Your task to perform on an android device: Clear the shopping cart on amazon. Search for "dell xps" on amazon, select the first entry, and add it to the cart. Image 0: 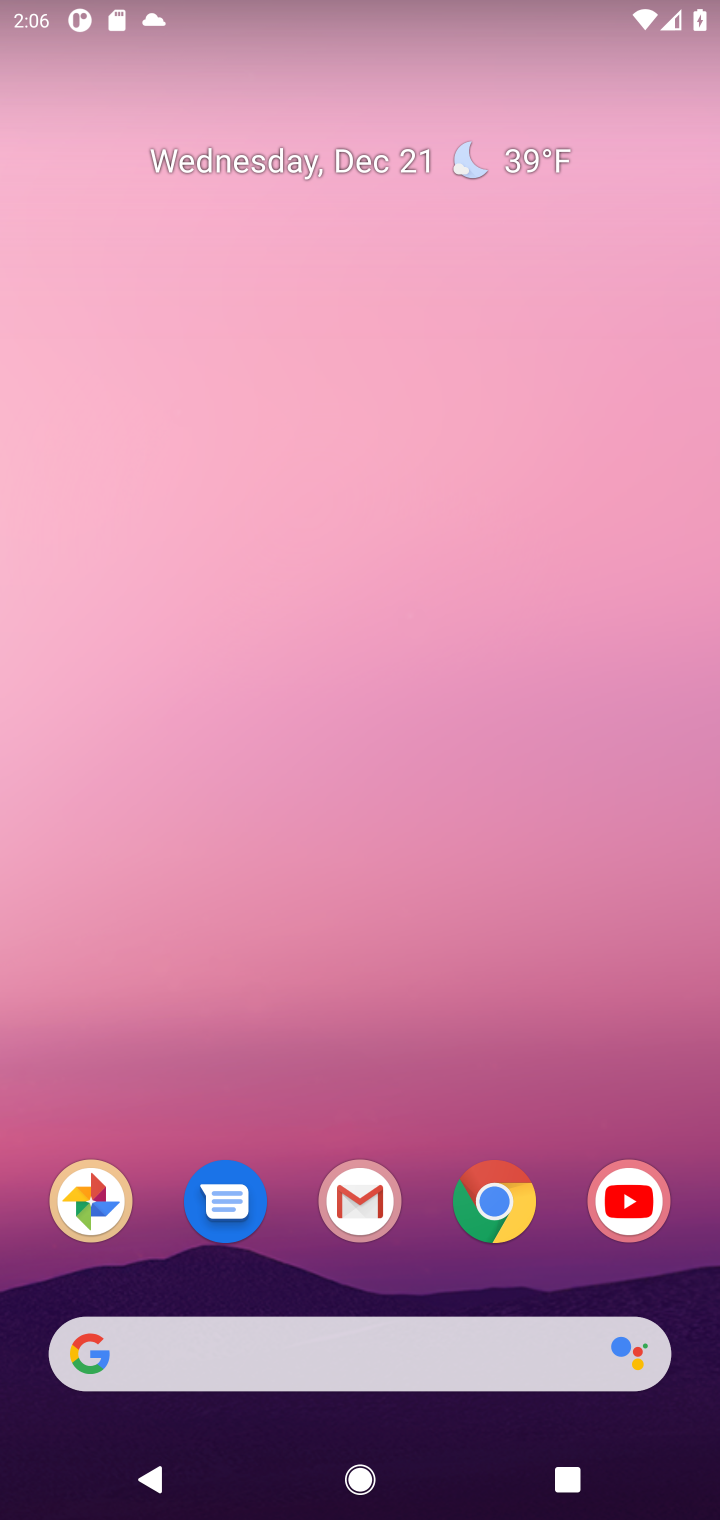
Step 0: click (488, 1198)
Your task to perform on an android device: Clear the shopping cart on amazon. Search for "dell xps" on amazon, select the first entry, and add it to the cart. Image 1: 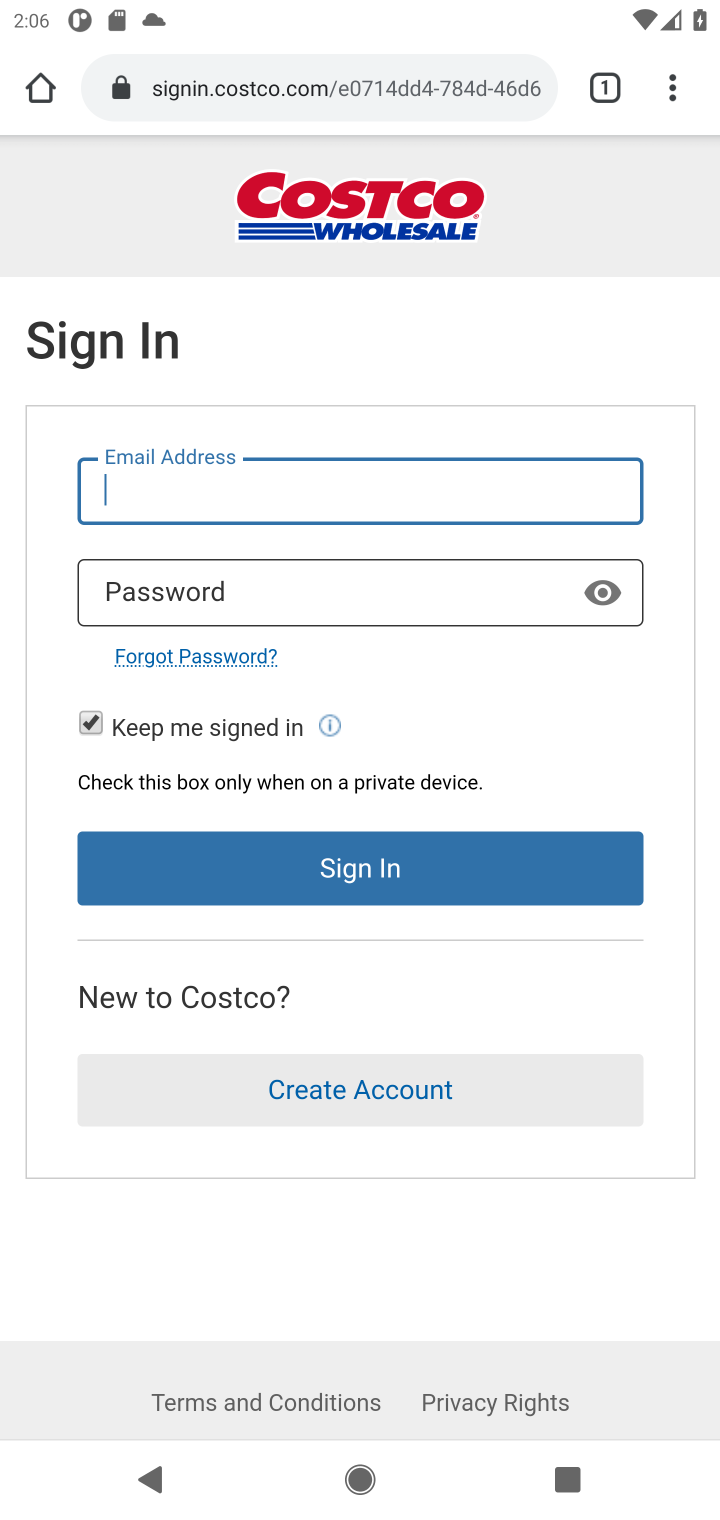
Step 1: click (317, 84)
Your task to perform on an android device: Clear the shopping cart on amazon. Search for "dell xps" on amazon, select the first entry, and add it to the cart. Image 2: 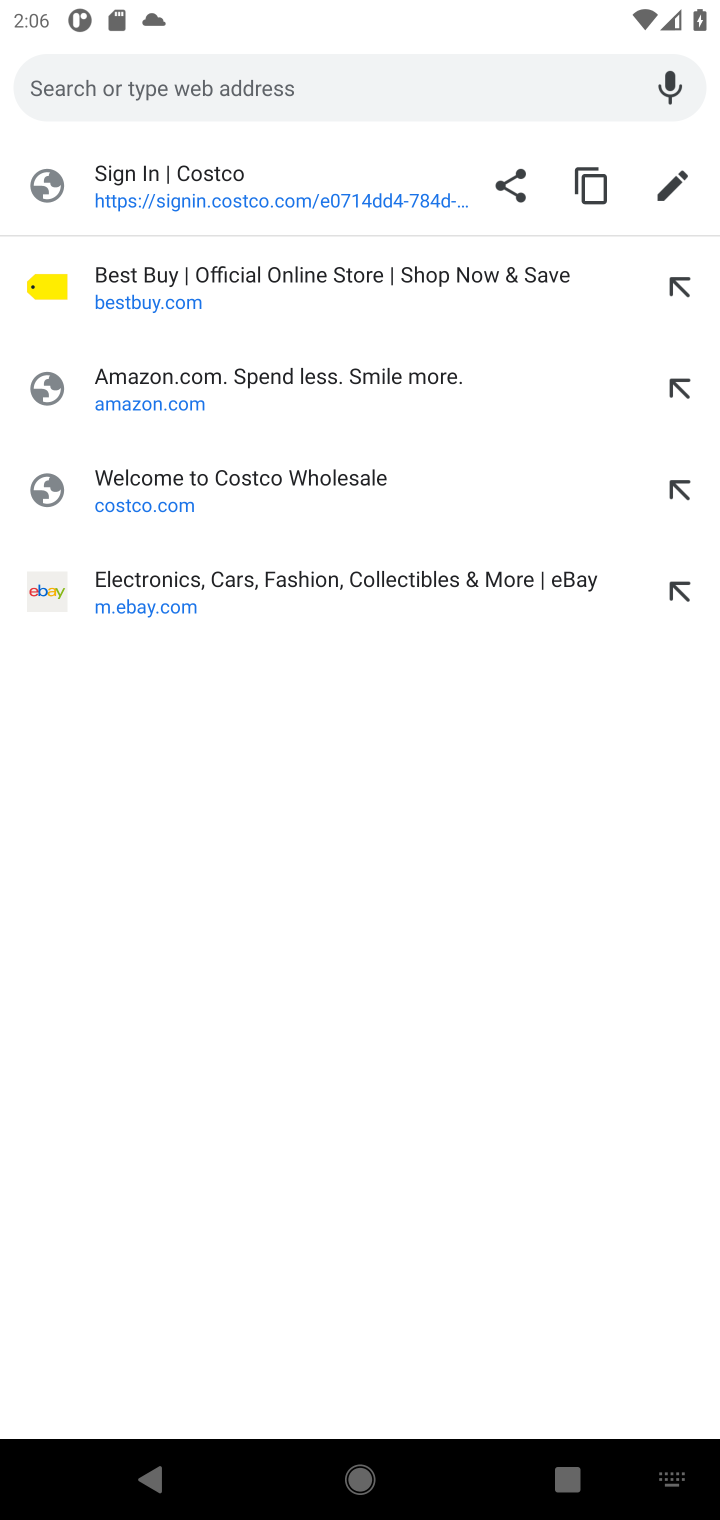
Step 2: click (106, 389)
Your task to perform on an android device: Clear the shopping cart on amazon. Search for "dell xps" on amazon, select the first entry, and add it to the cart. Image 3: 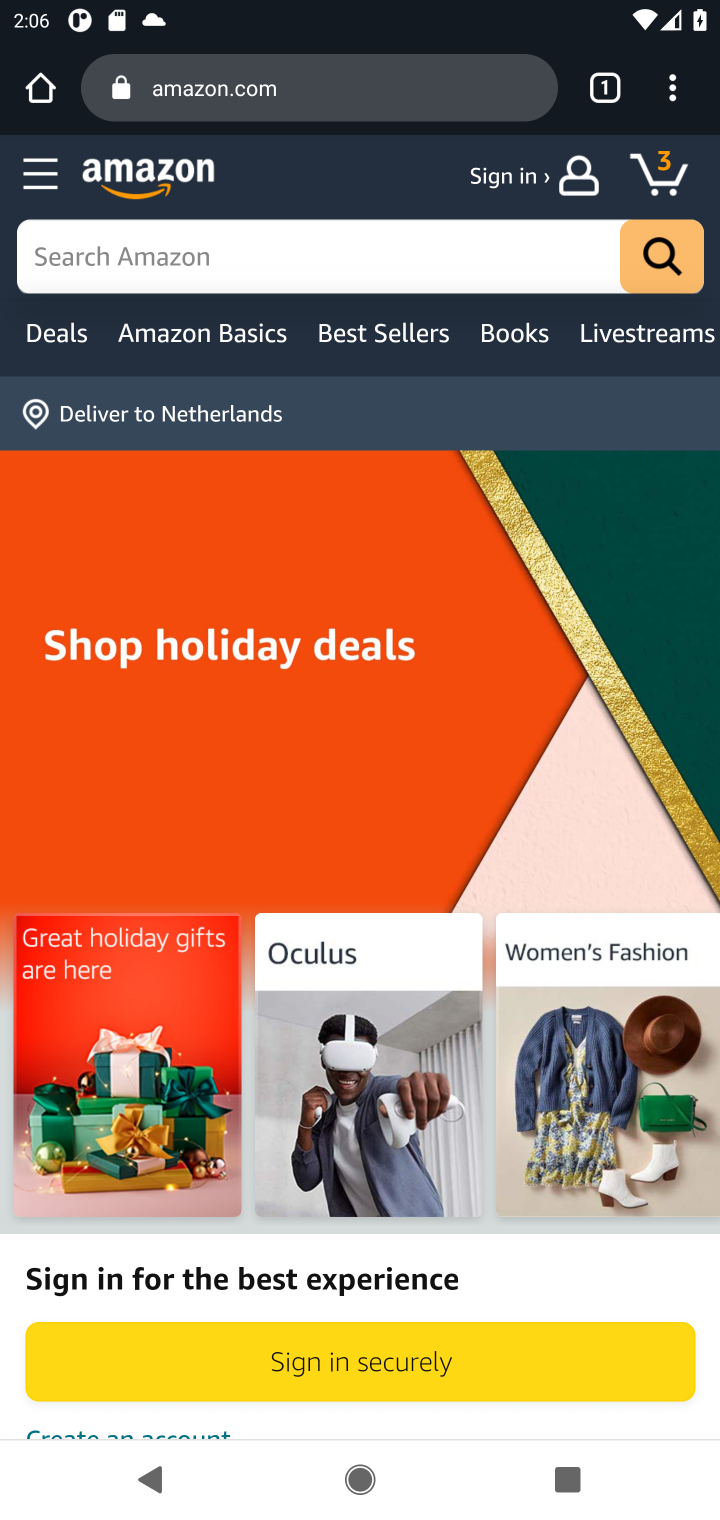
Step 3: click (665, 174)
Your task to perform on an android device: Clear the shopping cart on amazon. Search for "dell xps" on amazon, select the first entry, and add it to the cart. Image 4: 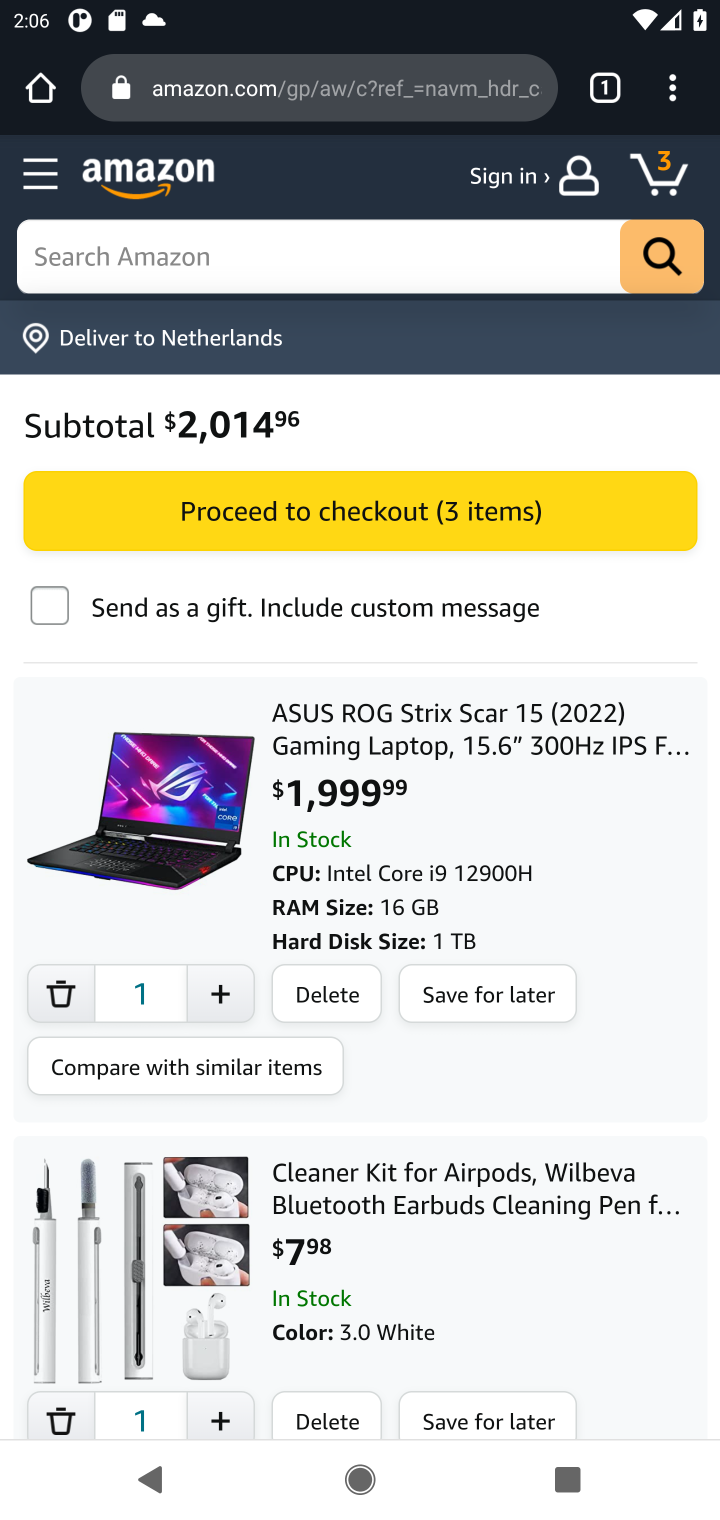
Step 4: click (325, 1000)
Your task to perform on an android device: Clear the shopping cart on amazon. Search for "dell xps" on amazon, select the first entry, and add it to the cart. Image 5: 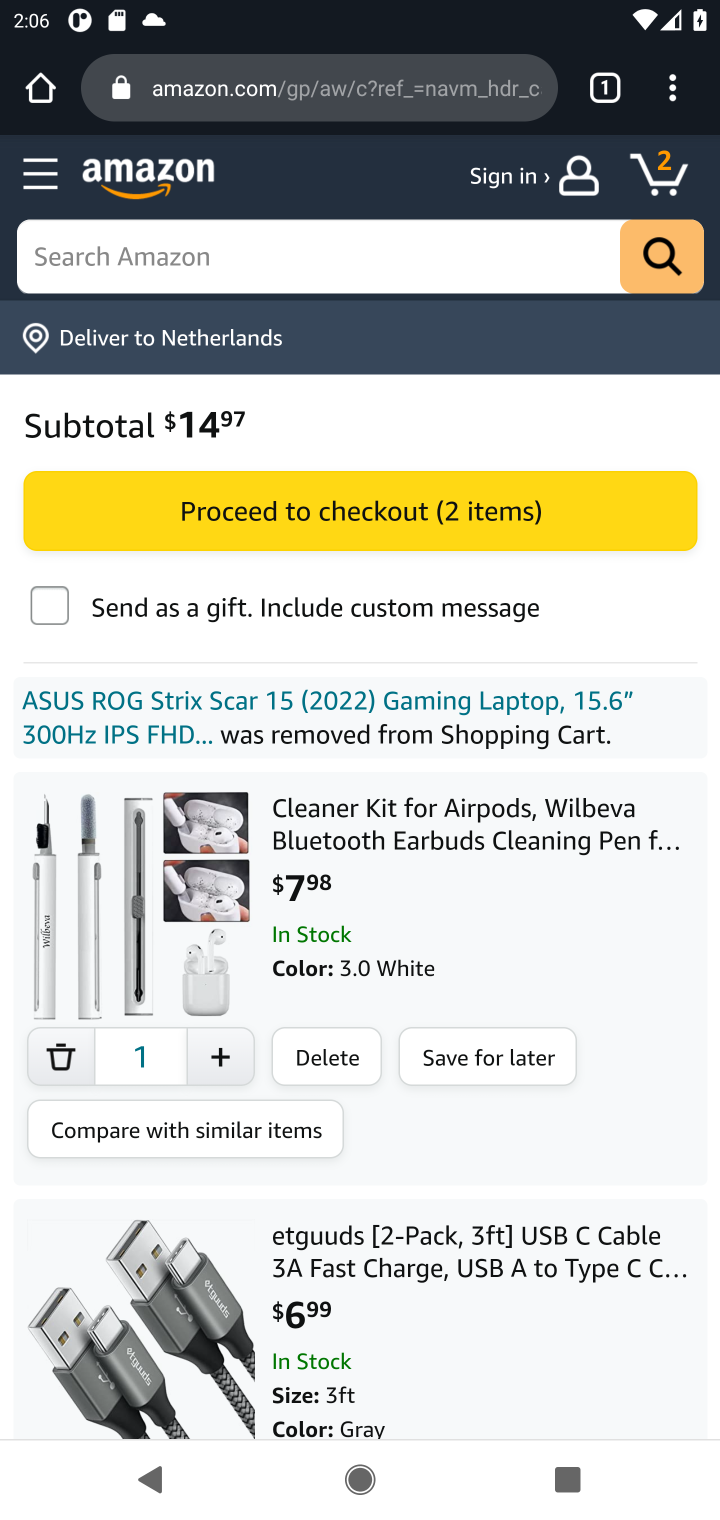
Step 5: click (320, 1058)
Your task to perform on an android device: Clear the shopping cart on amazon. Search for "dell xps" on amazon, select the first entry, and add it to the cart. Image 6: 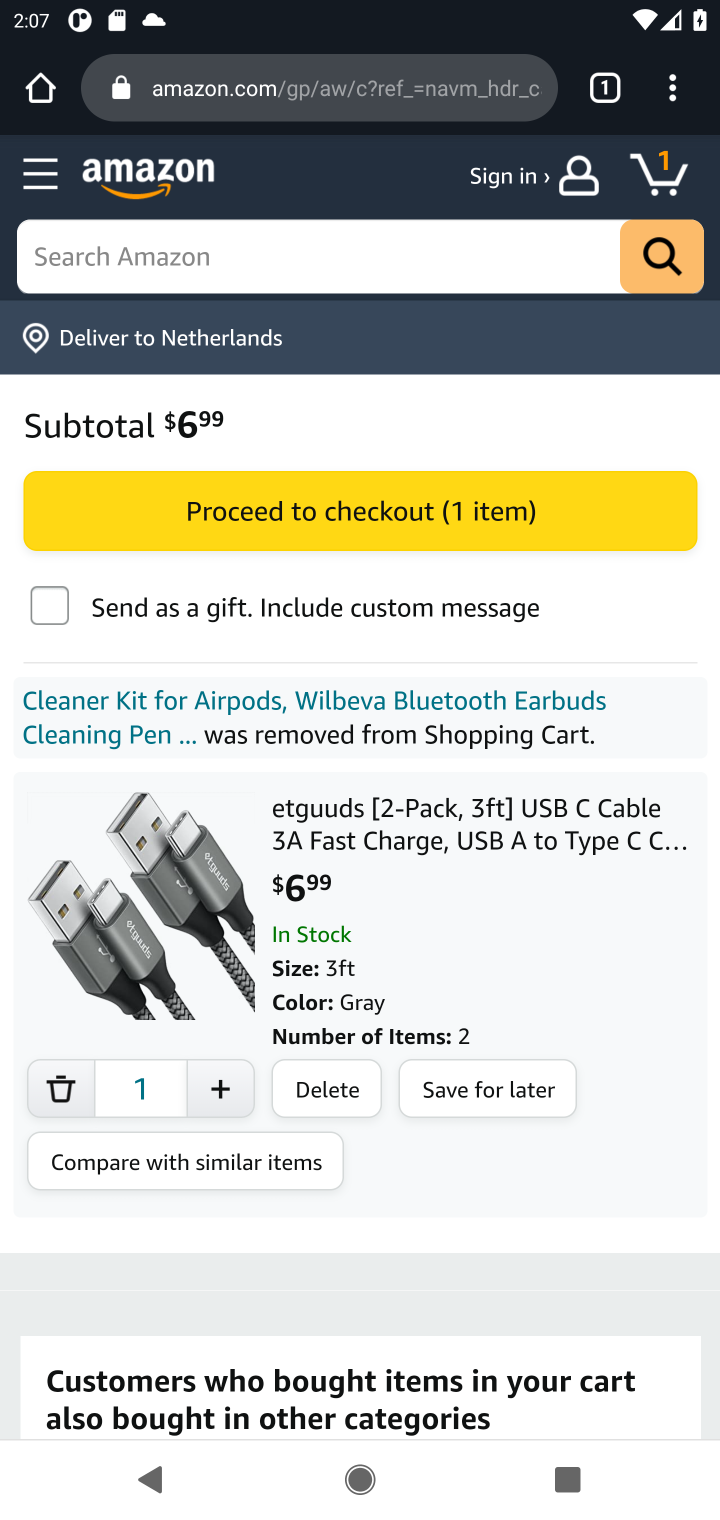
Step 6: click (320, 1090)
Your task to perform on an android device: Clear the shopping cart on amazon. Search for "dell xps" on amazon, select the first entry, and add it to the cart. Image 7: 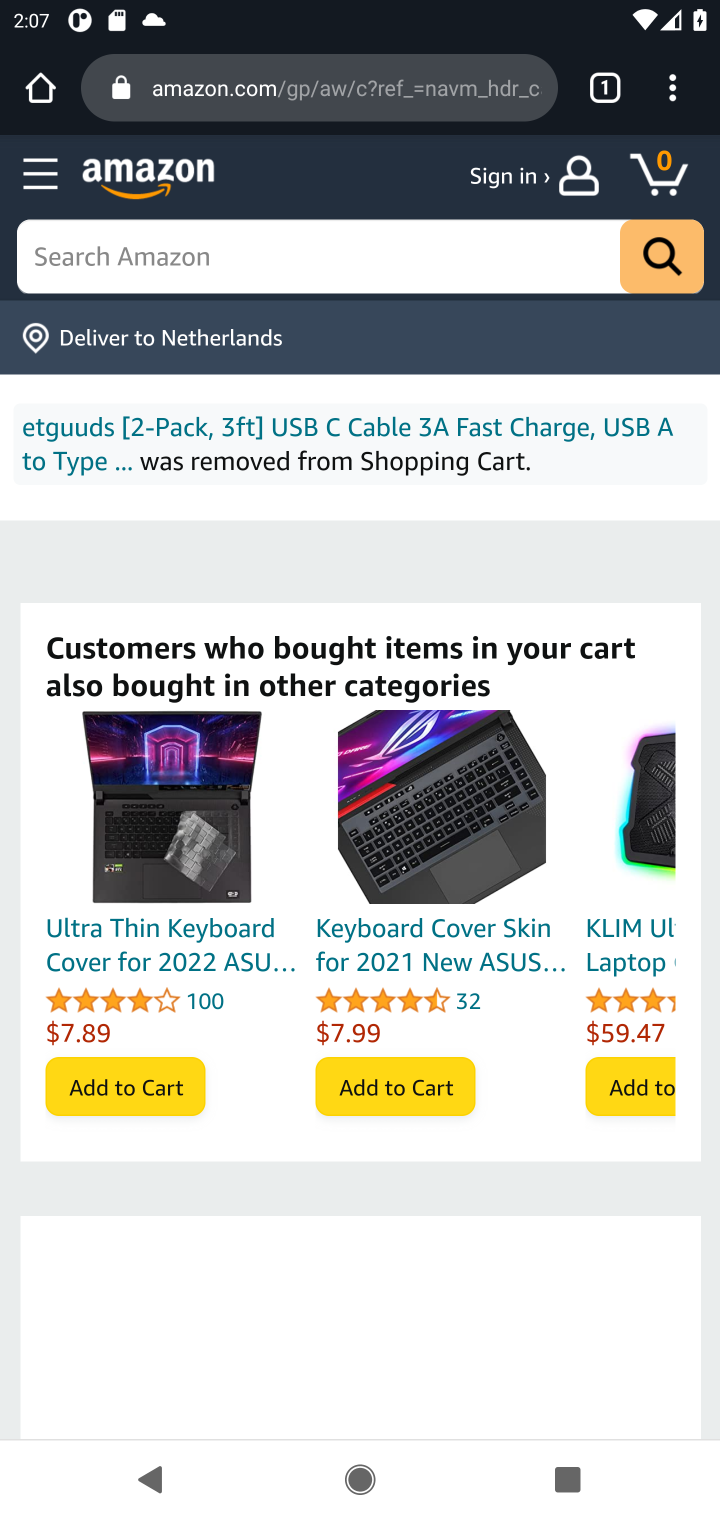
Step 7: click (290, 247)
Your task to perform on an android device: Clear the shopping cart on amazon. Search for "dell xps" on amazon, select the first entry, and add it to the cart. Image 8: 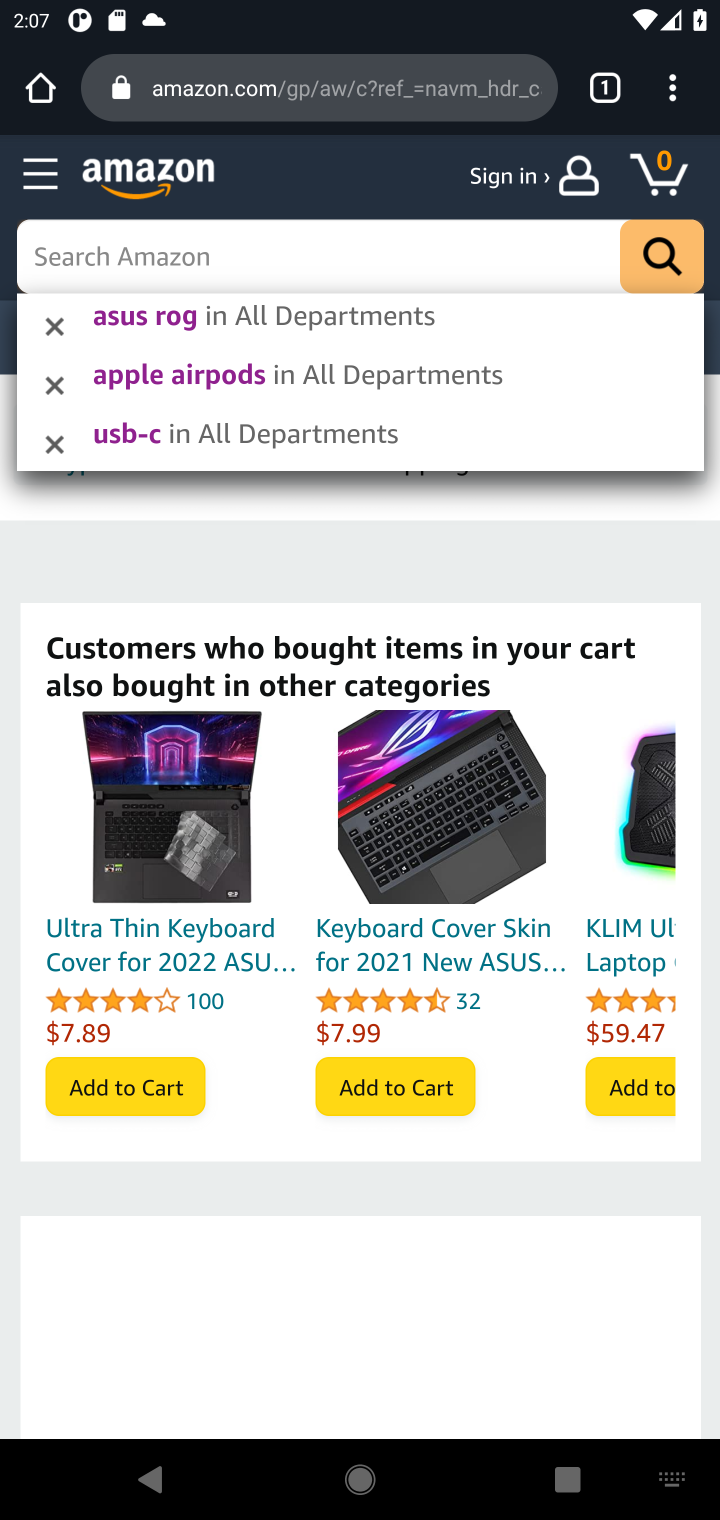
Step 8: type "dell xps "
Your task to perform on an android device: Clear the shopping cart on amazon. Search for "dell xps" on amazon, select the first entry, and add it to the cart. Image 9: 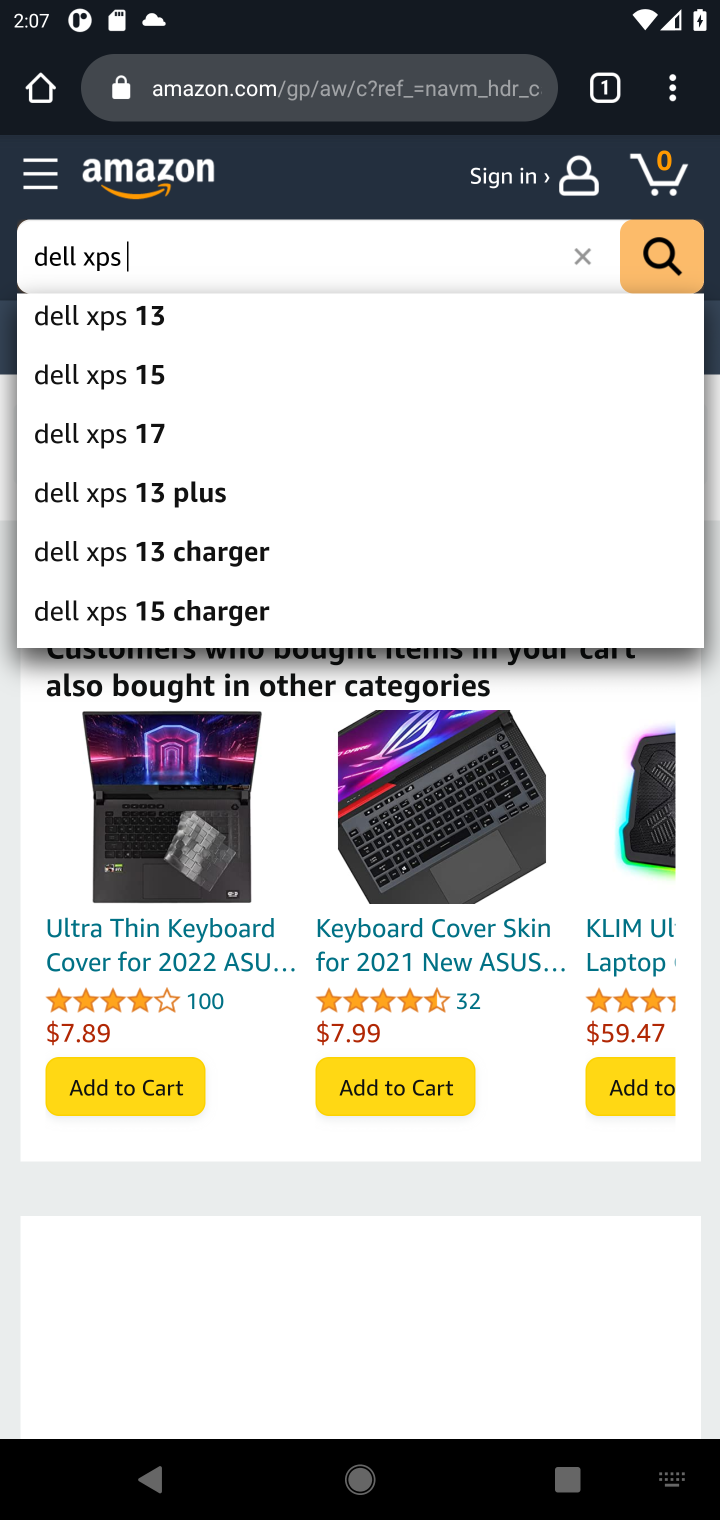
Step 9: click (121, 322)
Your task to perform on an android device: Clear the shopping cart on amazon. Search for "dell xps" on amazon, select the first entry, and add it to the cart. Image 10: 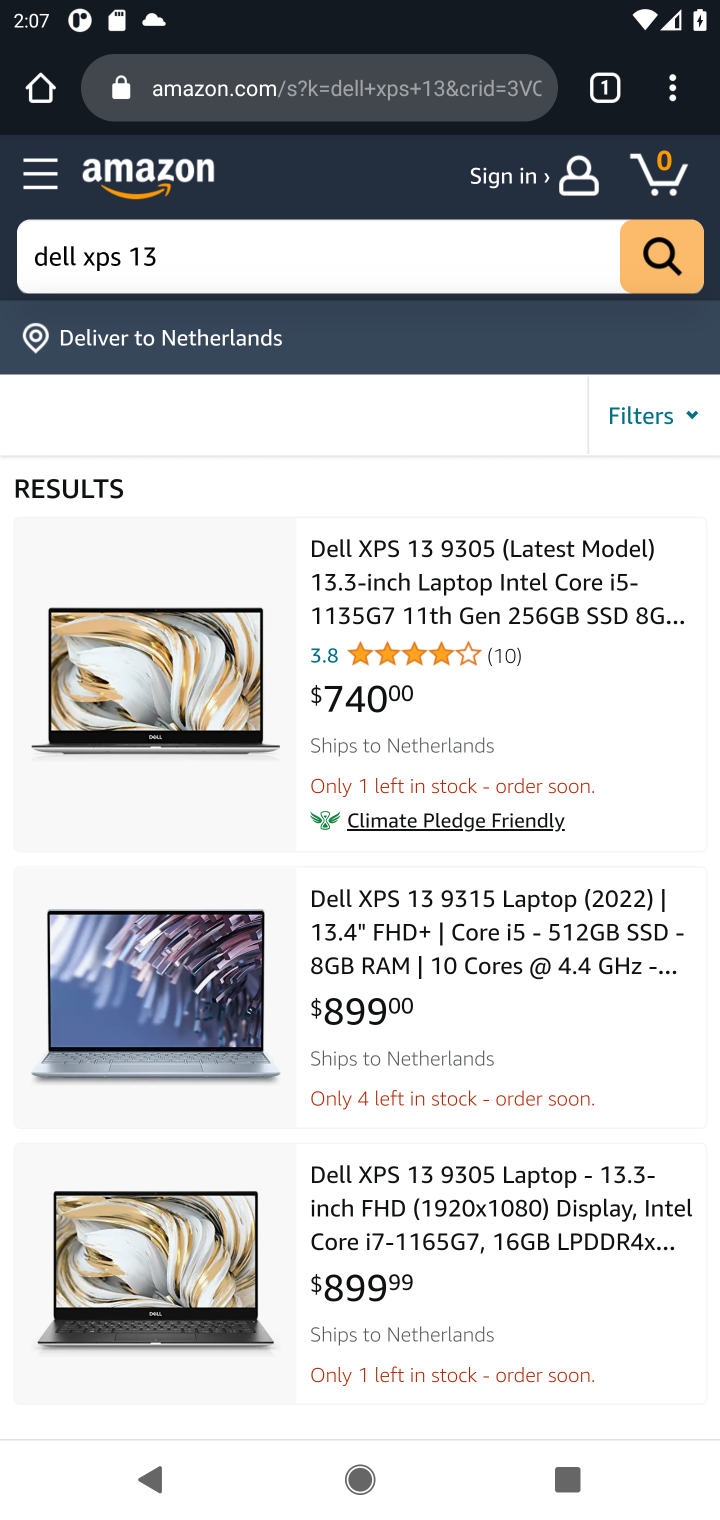
Step 10: click (406, 600)
Your task to perform on an android device: Clear the shopping cart on amazon. Search for "dell xps" on amazon, select the first entry, and add it to the cart. Image 11: 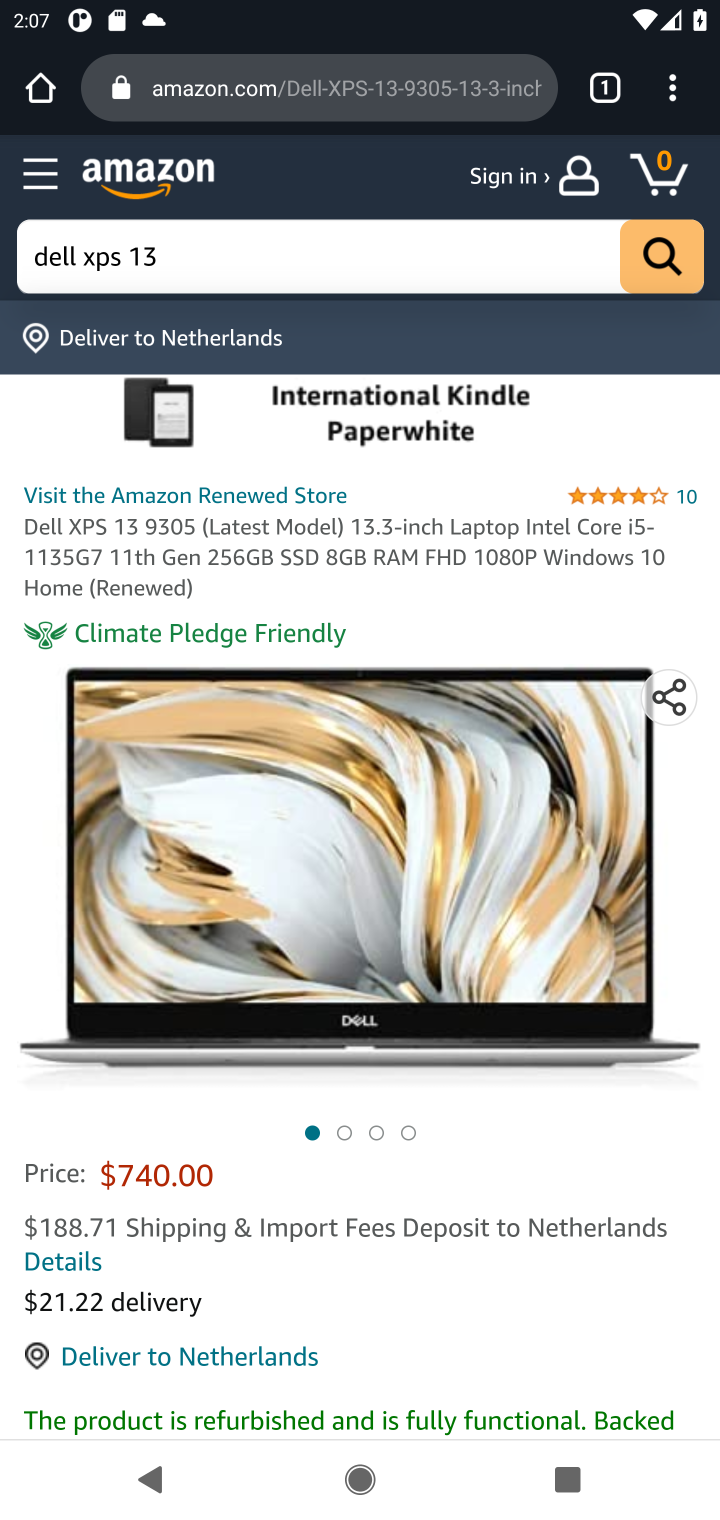
Step 11: drag from (410, 1135) to (425, 604)
Your task to perform on an android device: Clear the shopping cart on amazon. Search for "dell xps" on amazon, select the first entry, and add it to the cart. Image 12: 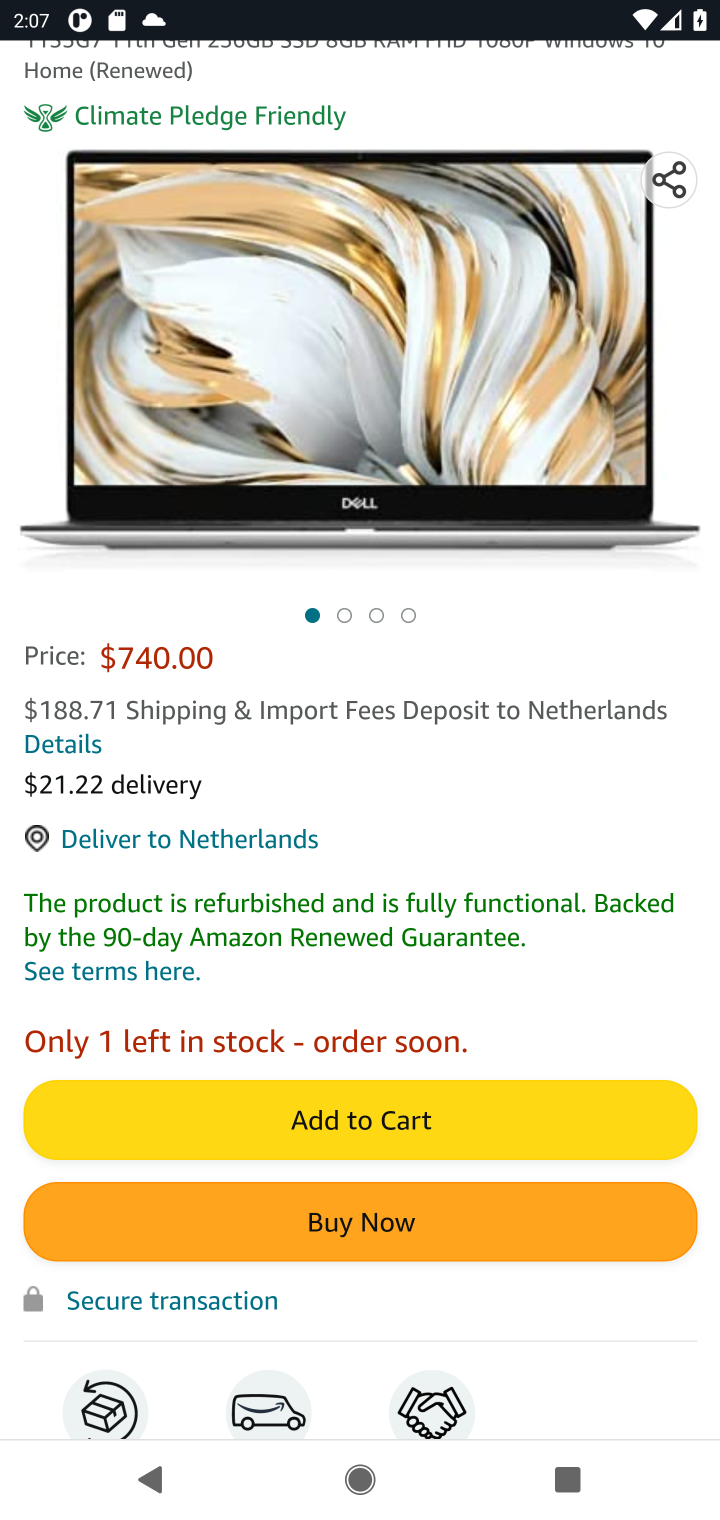
Step 12: click (370, 1122)
Your task to perform on an android device: Clear the shopping cart on amazon. Search for "dell xps" on amazon, select the first entry, and add it to the cart. Image 13: 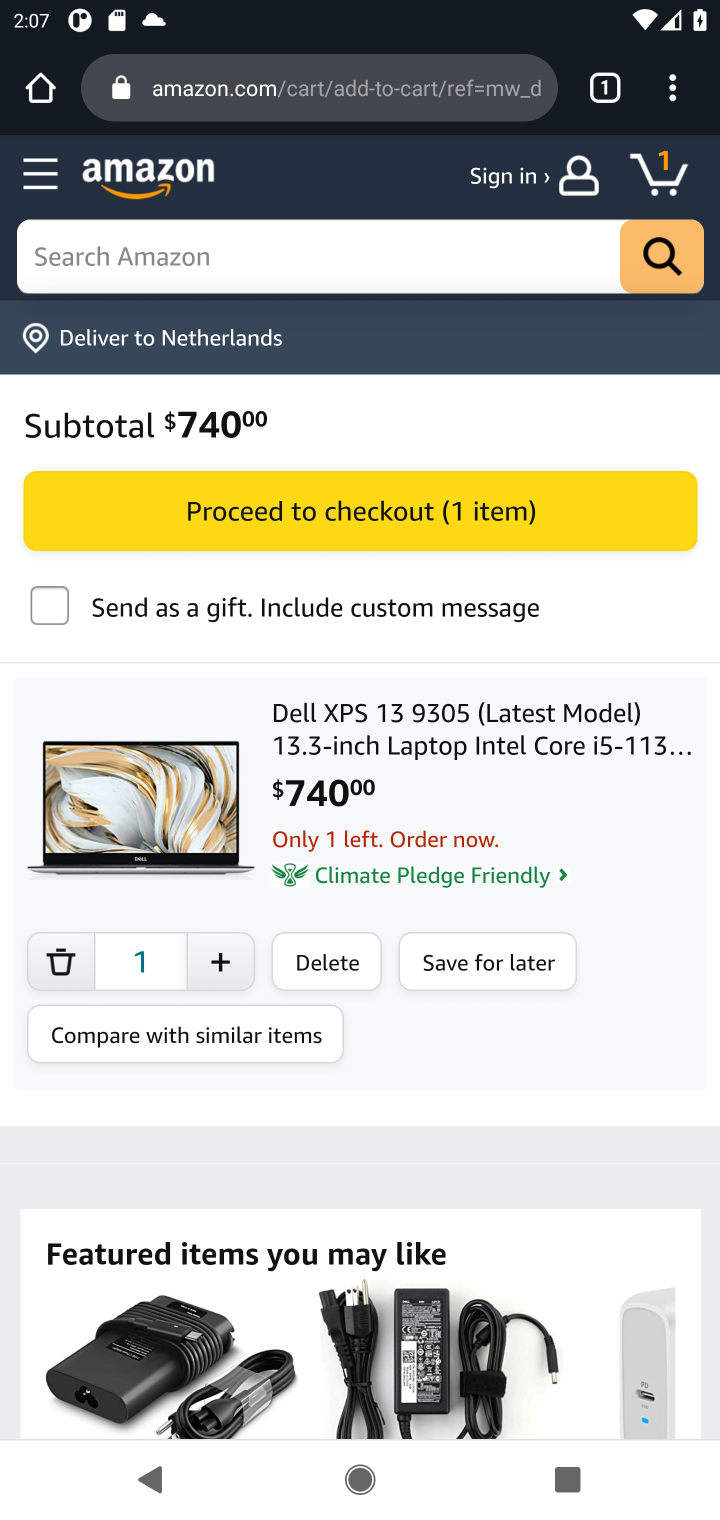
Step 13: task complete